Your task to perform on an android device: change the clock style Image 0: 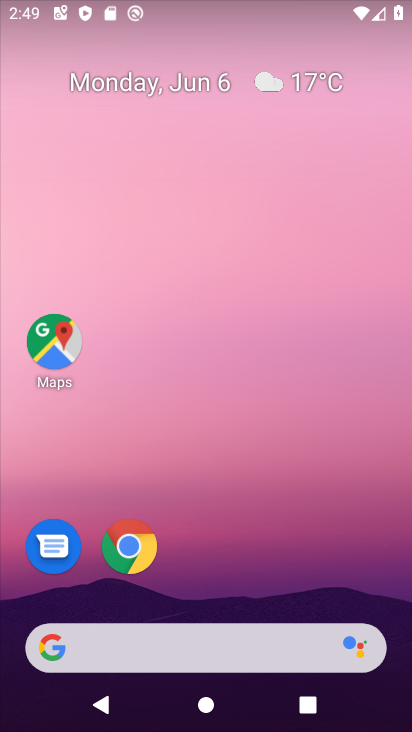
Step 0: drag from (241, 606) to (264, 37)
Your task to perform on an android device: change the clock style Image 1: 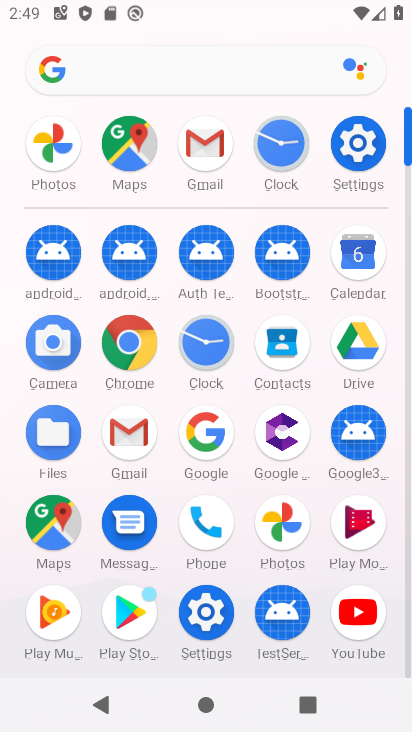
Step 1: click (341, 172)
Your task to perform on an android device: change the clock style Image 2: 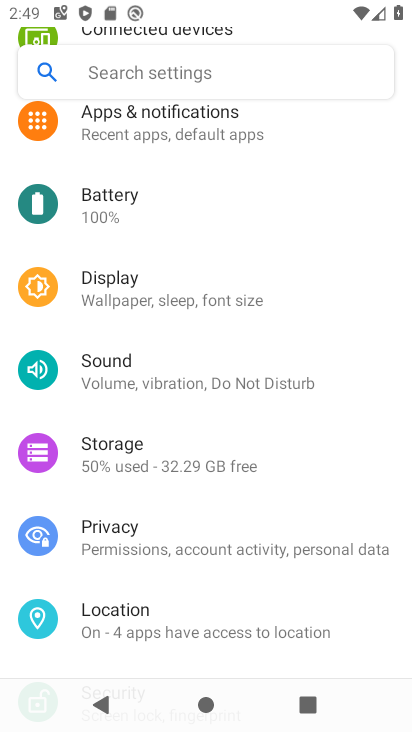
Step 2: press home button
Your task to perform on an android device: change the clock style Image 3: 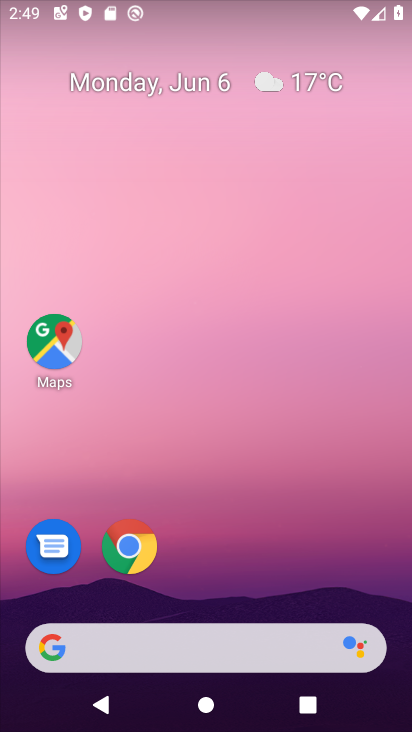
Step 3: drag from (262, 579) to (259, 15)
Your task to perform on an android device: change the clock style Image 4: 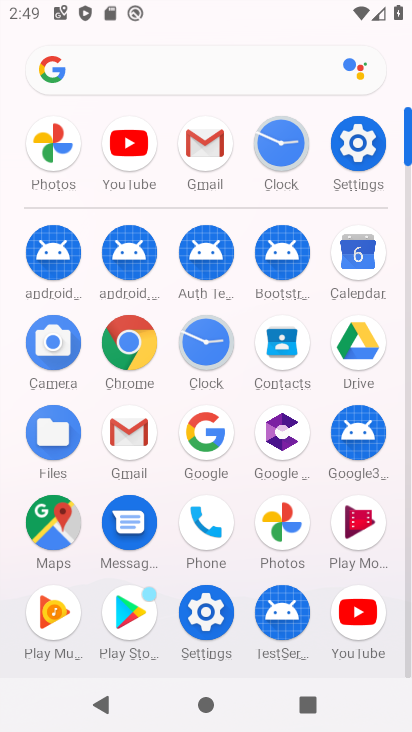
Step 4: click (279, 165)
Your task to perform on an android device: change the clock style Image 5: 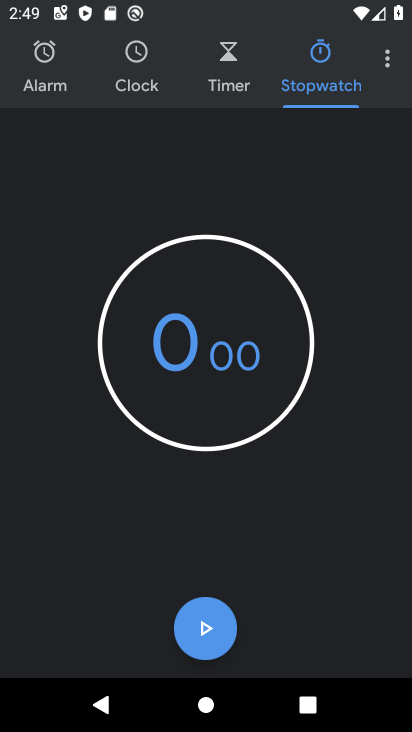
Step 5: task complete